Your task to perform on an android device: Open Reddit.com Image 0: 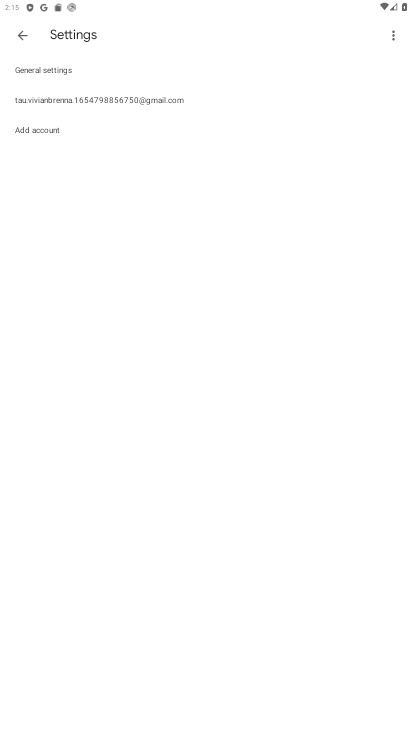
Step 0: press home button
Your task to perform on an android device: Open Reddit.com Image 1: 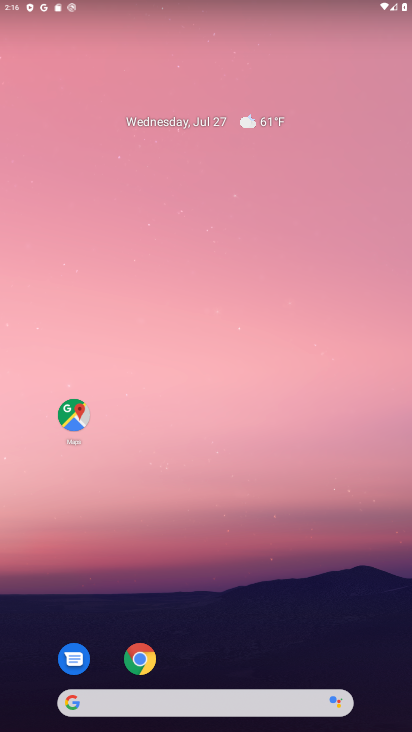
Step 1: drag from (196, 691) to (205, 170)
Your task to perform on an android device: Open Reddit.com Image 2: 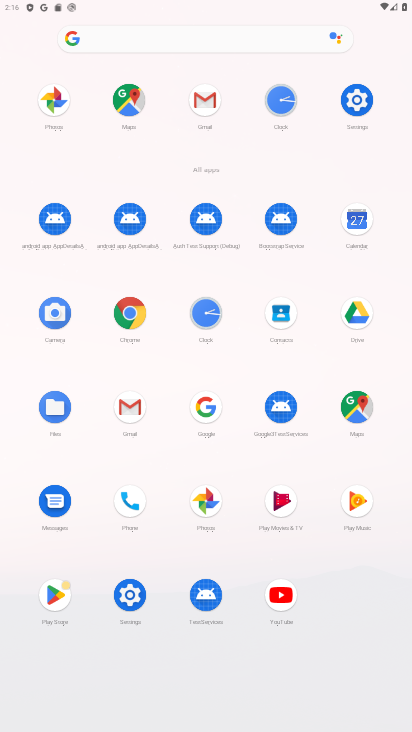
Step 2: click (210, 408)
Your task to perform on an android device: Open Reddit.com Image 3: 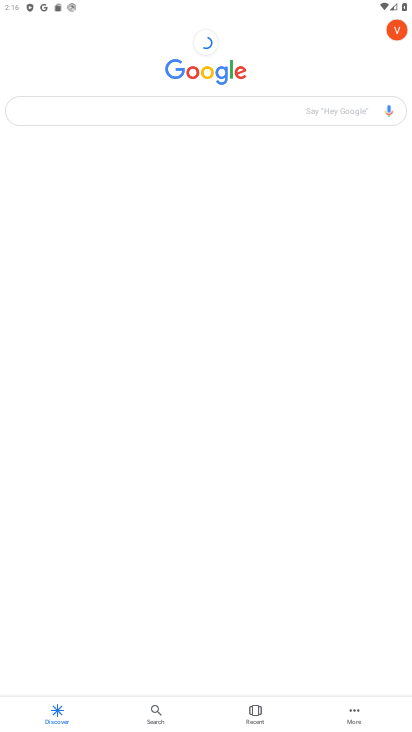
Step 3: click (97, 108)
Your task to perform on an android device: Open Reddit.com Image 4: 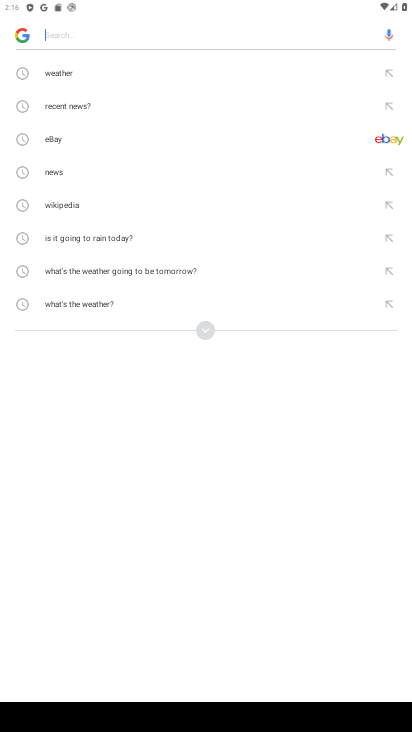
Step 4: click (211, 327)
Your task to perform on an android device: Open Reddit.com Image 5: 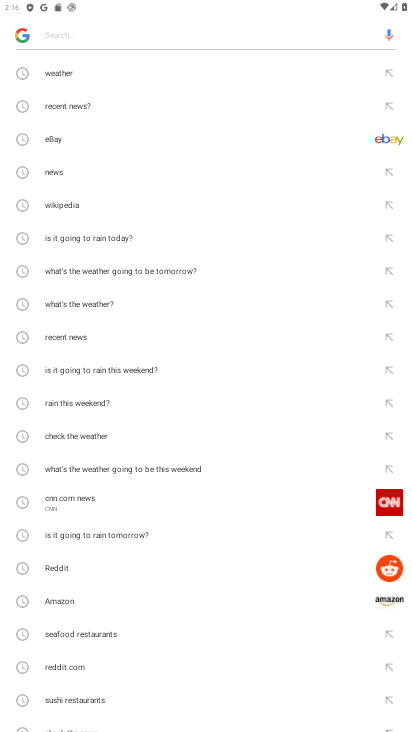
Step 5: click (65, 666)
Your task to perform on an android device: Open Reddit.com Image 6: 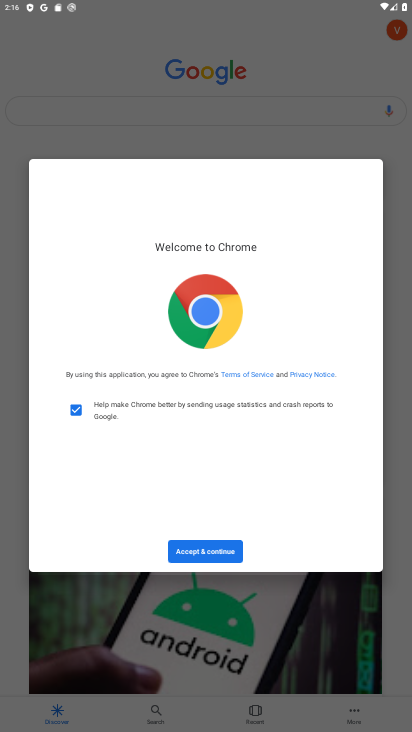
Step 6: click (207, 561)
Your task to perform on an android device: Open Reddit.com Image 7: 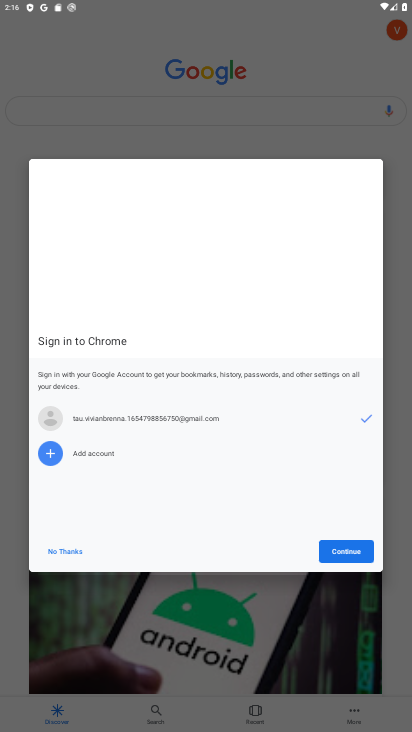
Step 7: click (337, 555)
Your task to perform on an android device: Open Reddit.com Image 8: 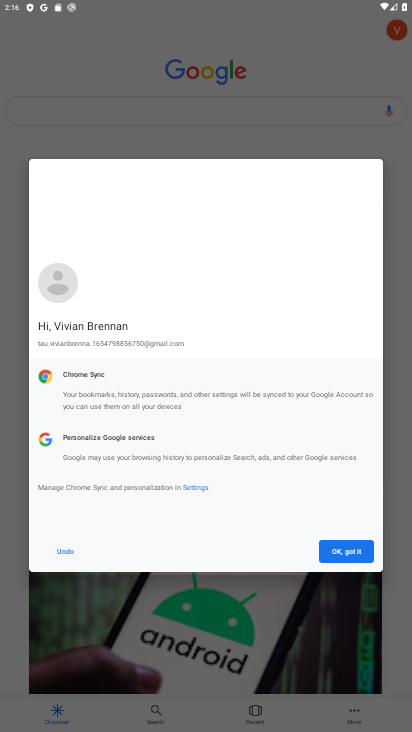
Step 8: click (337, 555)
Your task to perform on an android device: Open Reddit.com Image 9: 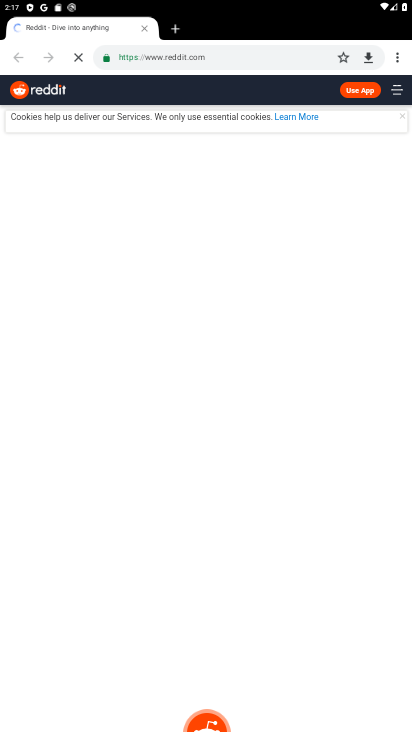
Step 9: task complete